Your task to perform on an android device: Search for sushi restaurants on Maps Image 0: 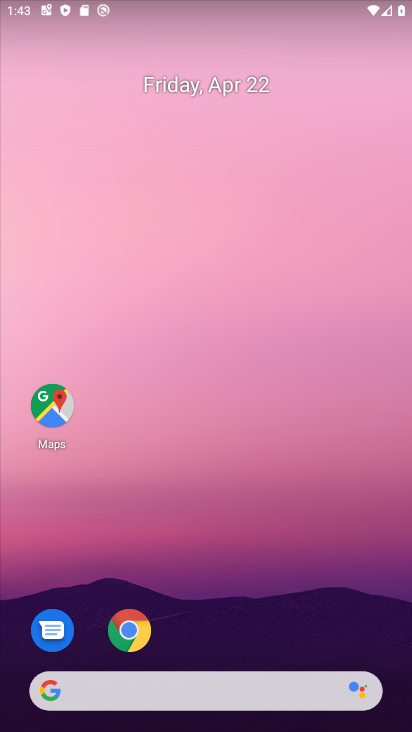
Step 0: drag from (366, 607) to (286, 258)
Your task to perform on an android device: Search for sushi restaurants on Maps Image 1: 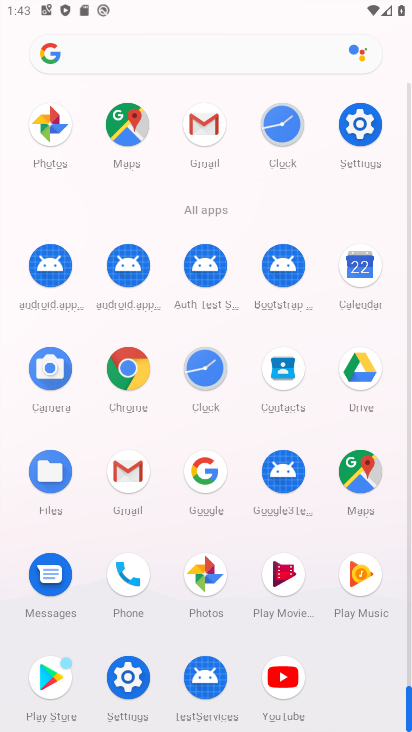
Step 1: click (125, 116)
Your task to perform on an android device: Search for sushi restaurants on Maps Image 2: 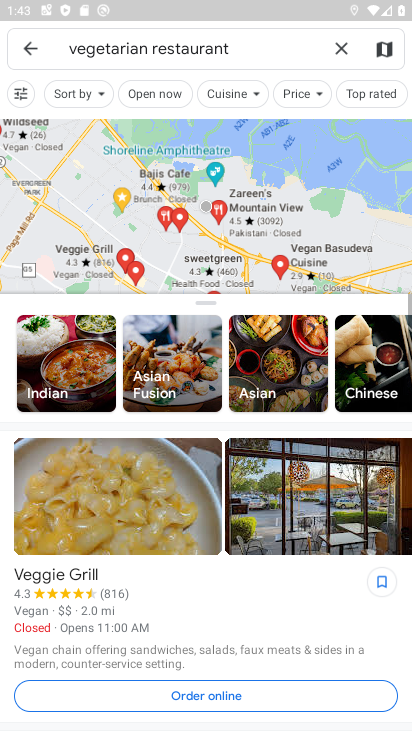
Step 2: click (335, 51)
Your task to perform on an android device: Search for sushi restaurants on Maps Image 3: 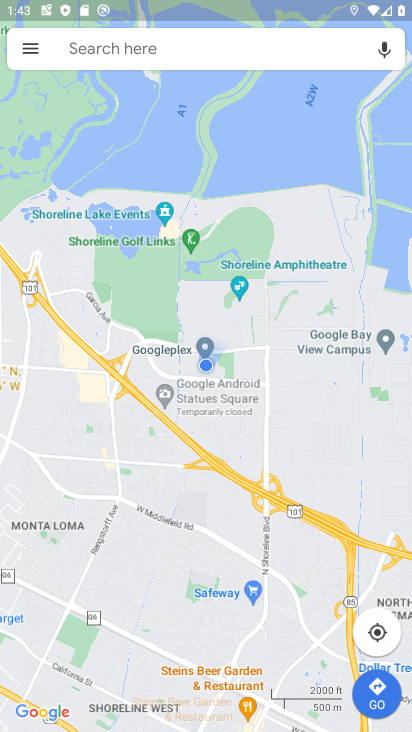
Step 3: click (86, 47)
Your task to perform on an android device: Search for sushi restaurants on Maps Image 4: 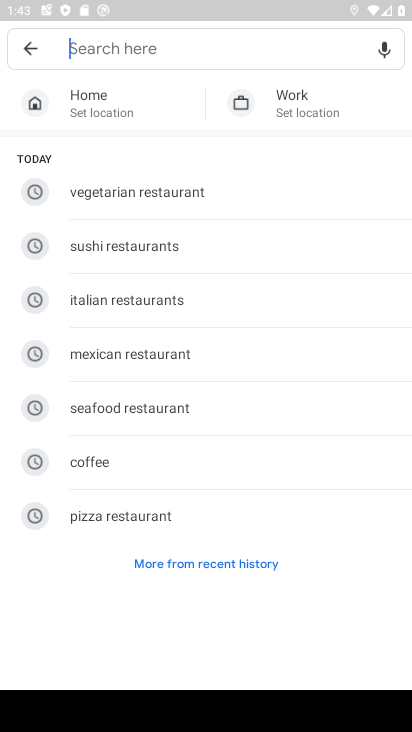
Step 4: type "sushi restaurants"
Your task to perform on an android device: Search for sushi restaurants on Maps Image 5: 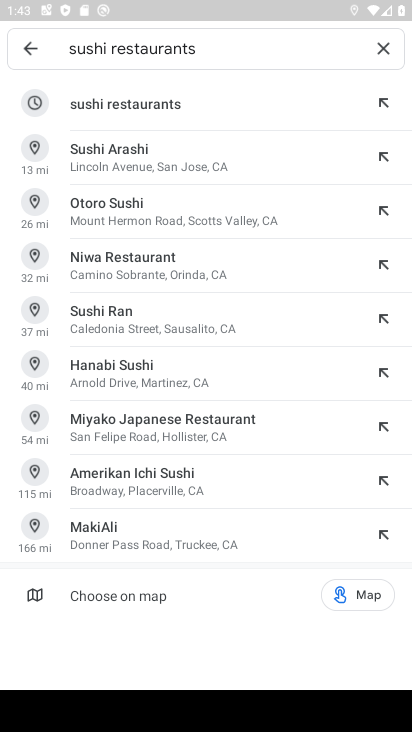
Step 5: click (124, 102)
Your task to perform on an android device: Search for sushi restaurants on Maps Image 6: 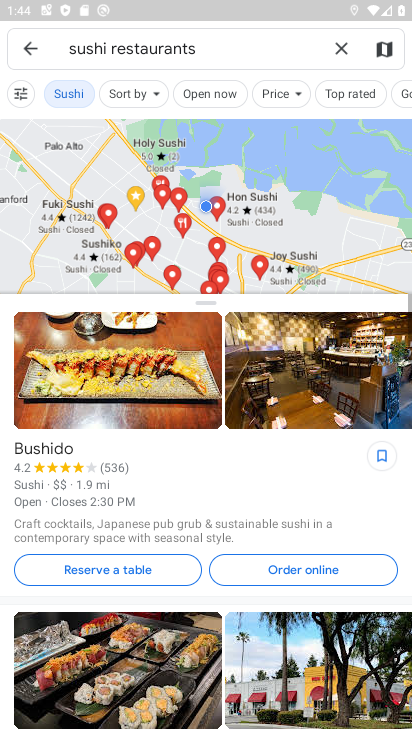
Step 6: task complete